Your task to perform on an android device: Open CNN.com Image 0: 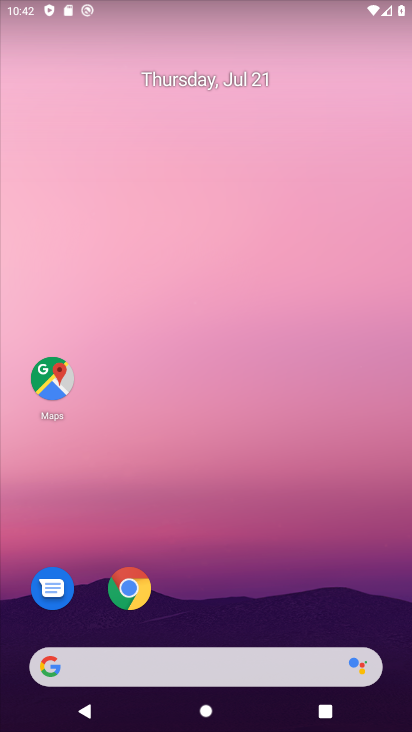
Step 0: click (117, 13)
Your task to perform on an android device: Open CNN.com Image 1: 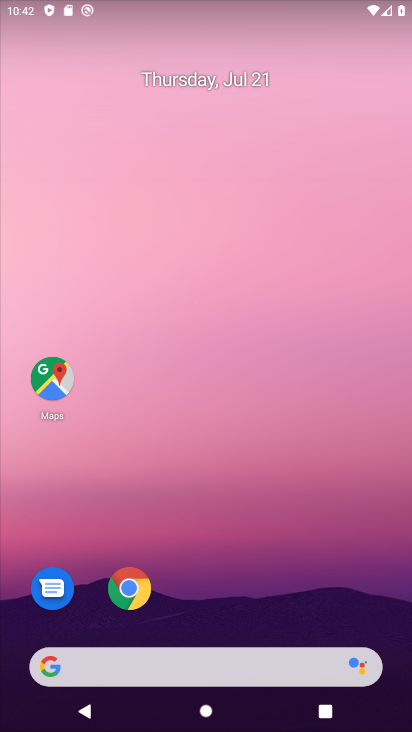
Step 1: drag from (217, 548) to (174, 188)
Your task to perform on an android device: Open CNN.com Image 2: 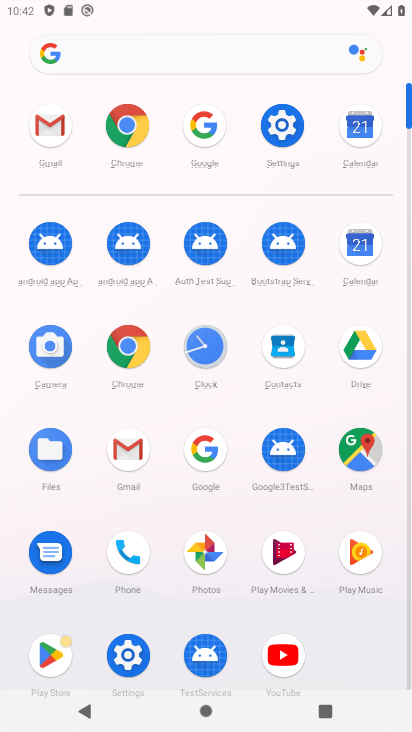
Step 2: click (191, 44)
Your task to perform on an android device: Open CNN.com Image 3: 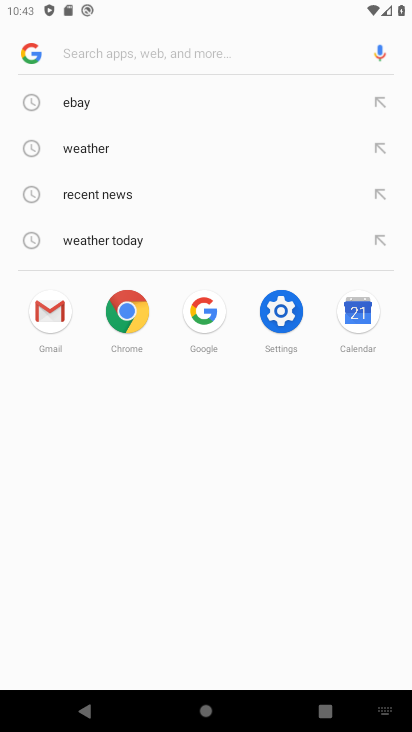
Step 3: type "CNN.com"
Your task to perform on an android device: Open CNN.com Image 4: 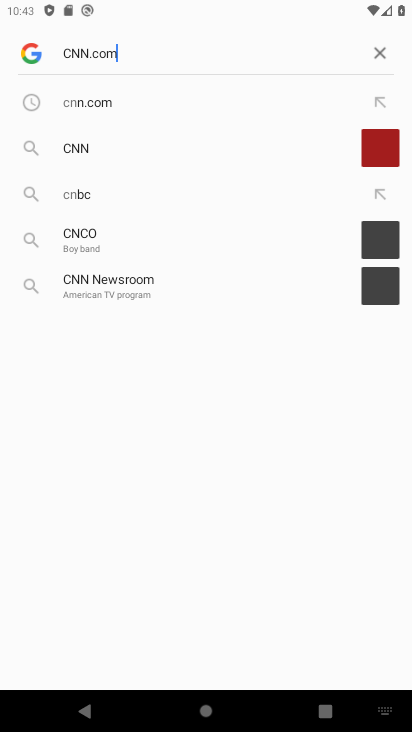
Step 4: type ""
Your task to perform on an android device: Open CNN.com Image 5: 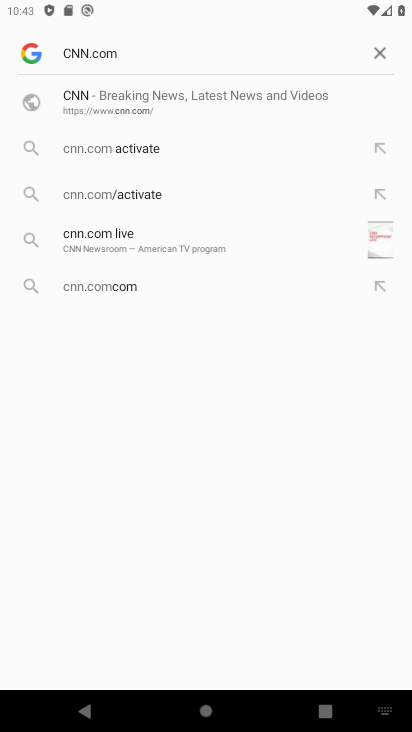
Step 5: click (92, 100)
Your task to perform on an android device: Open CNN.com Image 6: 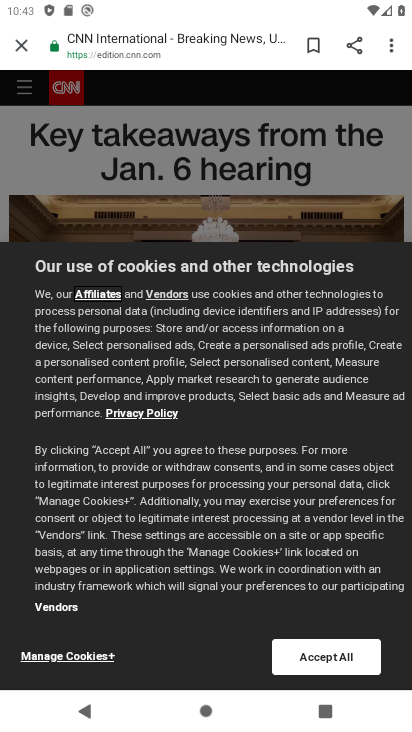
Step 6: task complete